Your task to perform on an android device: delete browsing data in the chrome app Image 0: 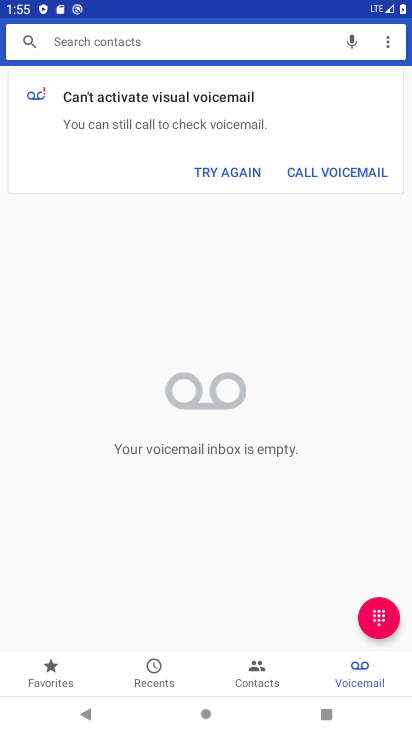
Step 0: press home button
Your task to perform on an android device: delete browsing data in the chrome app Image 1: 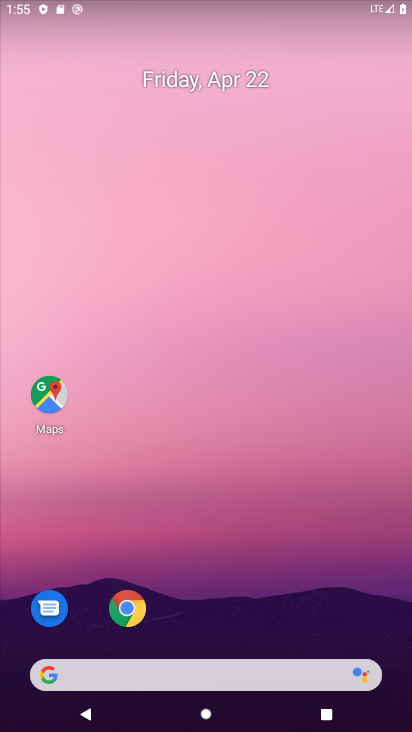
Step 1: drag from (268, 706) to (142, 153)
Your task to perform on an android device: delete browsing data in the chrome app Image 2: 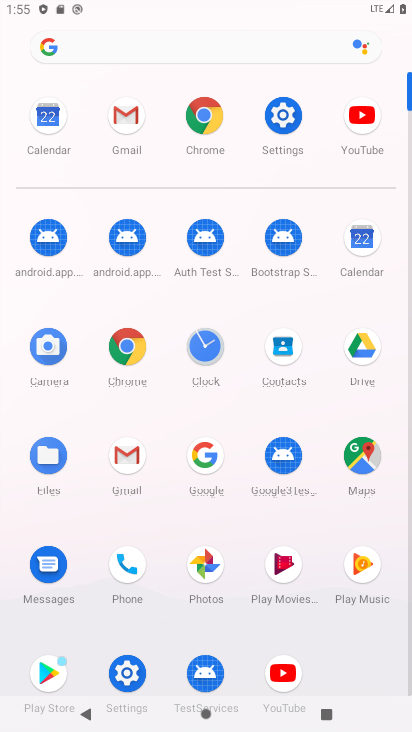
Step 2: click (209, 125)
Your task to perform on an android device: delete browsing data in the chrome app Image 3: 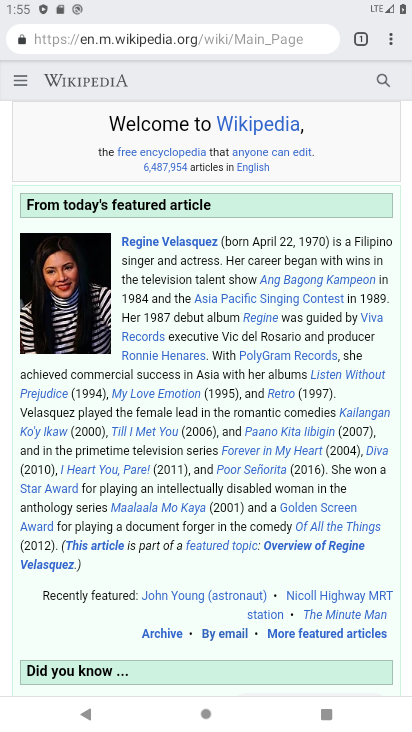
Step 3: click (382, 39)
Your task to perform on an android device: delete browsing data in the chrome app Image 4: 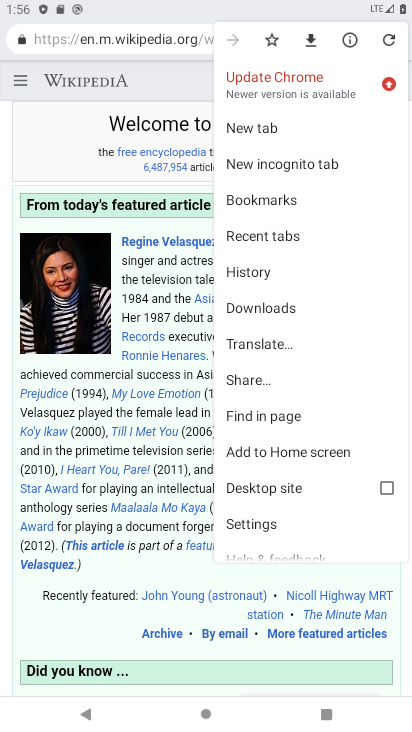
Step 4: click (255, 525)
Your task to perform on an android device: delete browsing data in the chrome app Image 5: 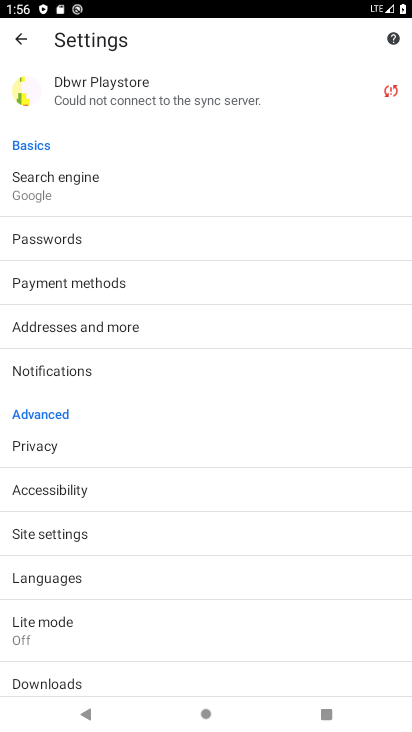
Step 5: click (49, 437)
Your task to perform on an android device: delete browsing data in the chrome app Image 6: 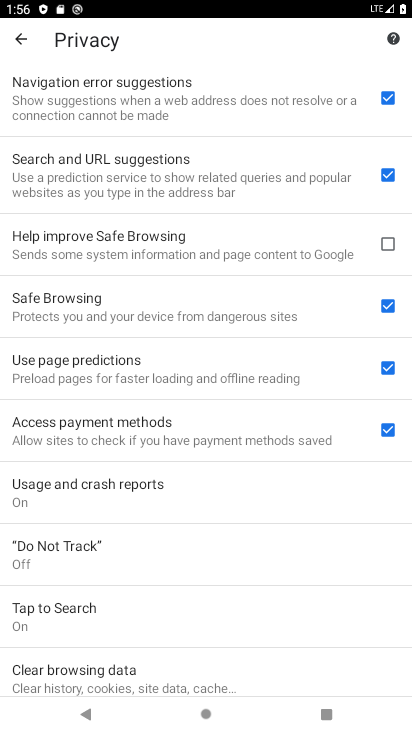
Step 6: click (64, 671)
Your task to perform on an android device: delete browsing data in the chrome app Image 7: 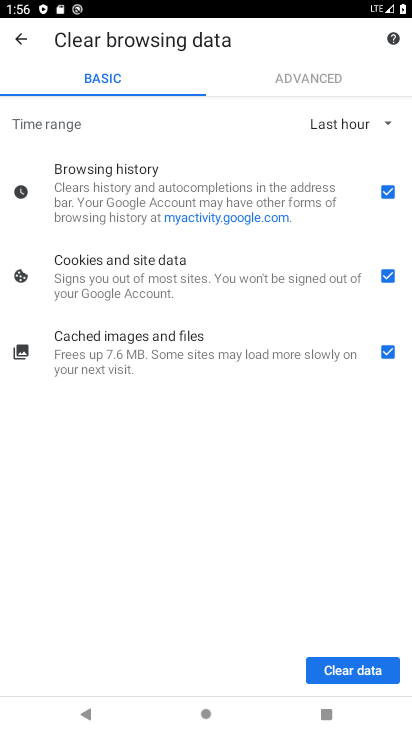
Step 7: click (354, 663)
Your task to perform on an android device: delete browsing data in the chrome app Image 8: 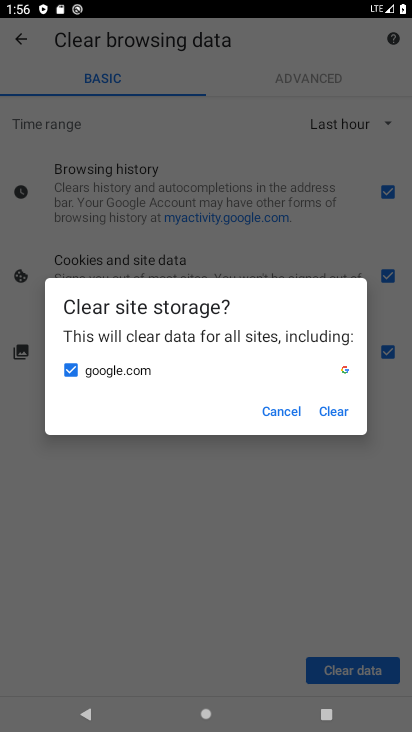
Step 8: task complete